Your task to perform on an android device: add a contact Image 0: 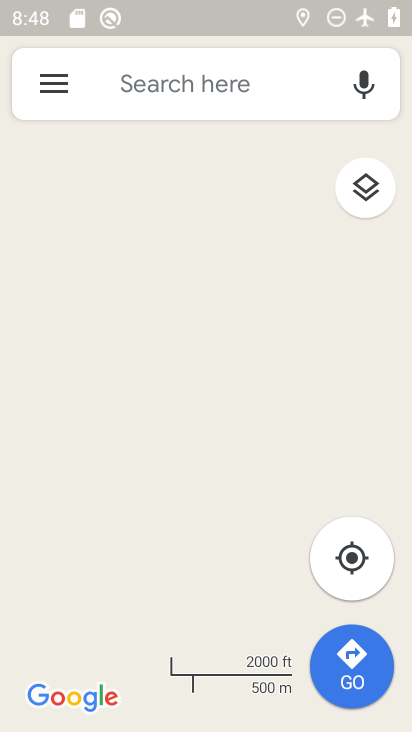
Step 0: press back button
Your task to perform on an android device: add a contact Image 1: 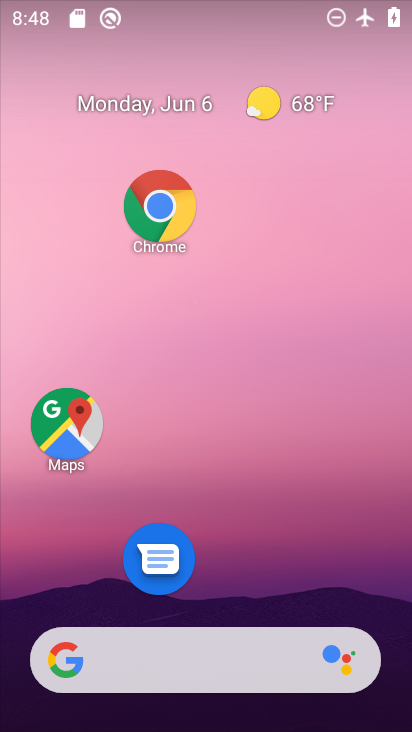
Step 1: drag from (230, 702) to (190, 192)
Your task to perform on an android device: add a contact Image 2: 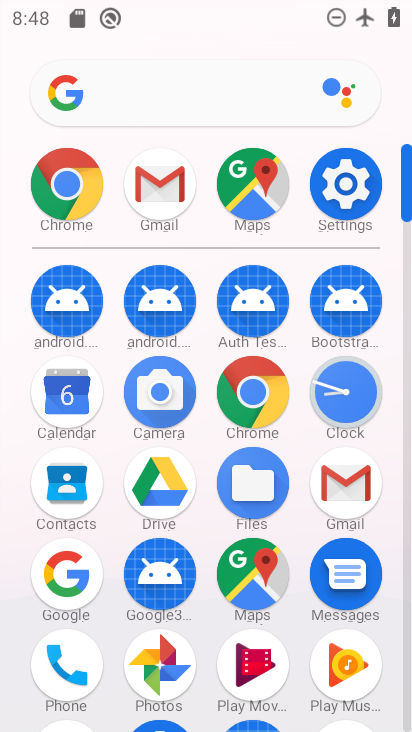
Step 2: click (59, 510)
Your task to perform on an android device: add a contact Image 3: 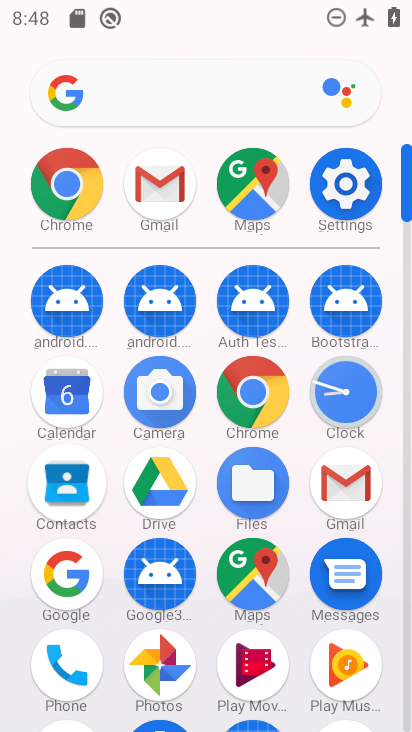
Step 3: click (63, 490)
Your task to perform on an android device: add a contact Image 4: 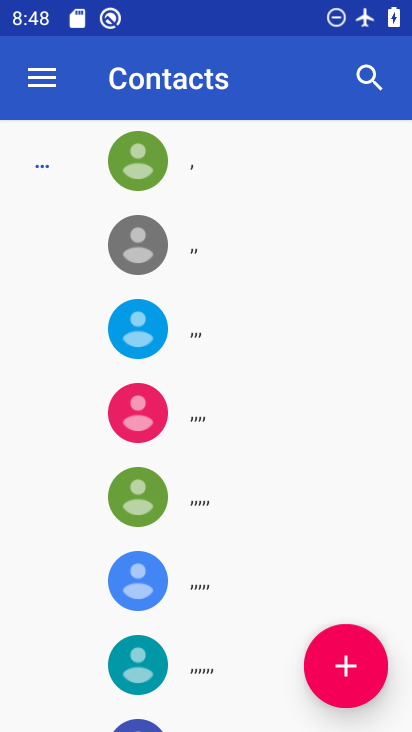
Step 4: click (340, 660)
Your task to perform on an android device: add a contact Image 5: 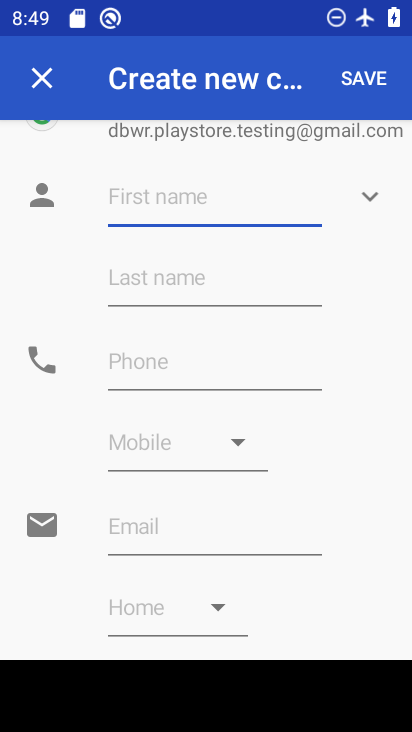
Step 5: type ""
Your task to perform on an android device: add a contact Image 6: 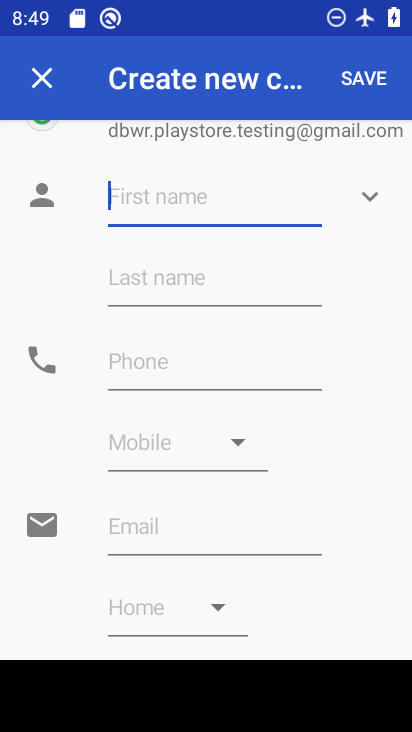
Step 6: type "be cjbfecj"
Your task to perform on an android device: add a contact Image 7: 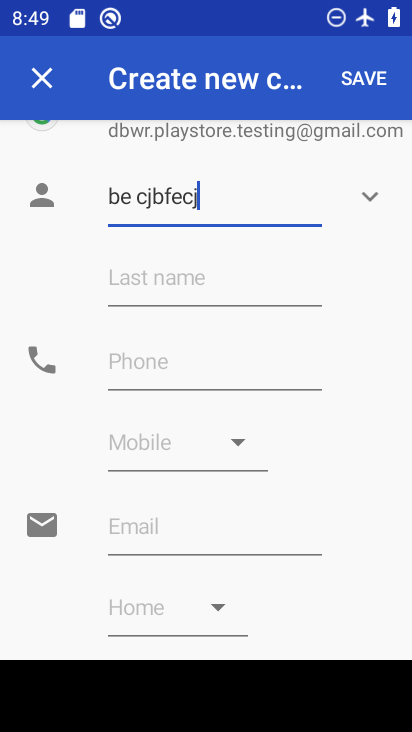
Step 7: click (137, 360)
Your task to perform on an android device: add a contact Image 8: 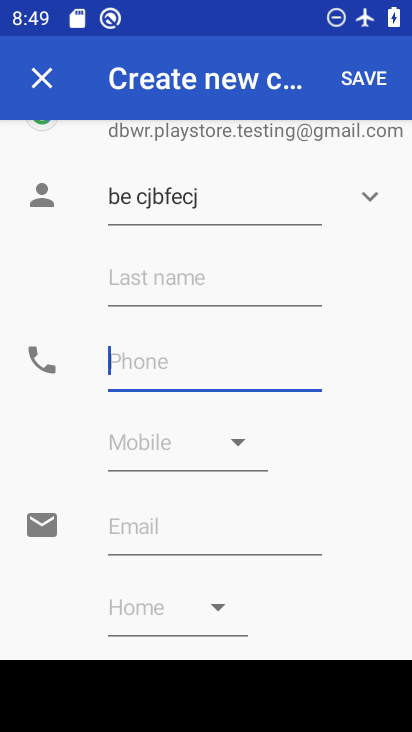
Step 8: click (137, 360)
Your task to perform on an android device: add a contact Image 9: 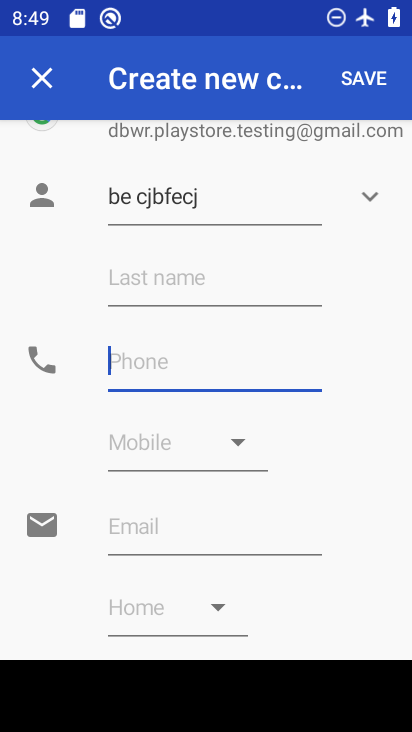
Step 9: click (137, 360)
Your task to perform on an android device: add a contact Image 10: 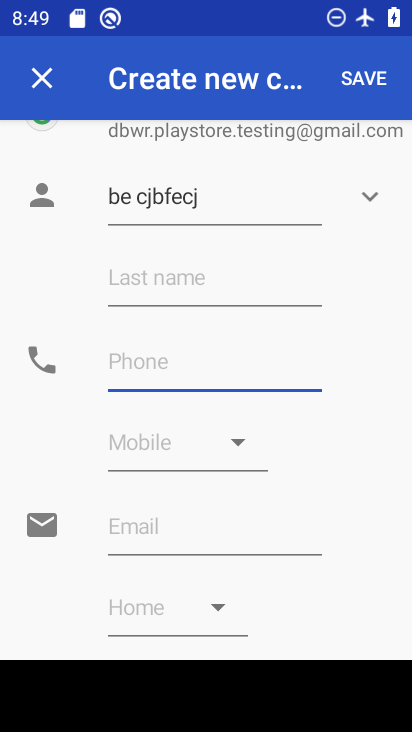
Step 10: click (137, 360)
Your task to perform on an android device: add a contact Image 11: 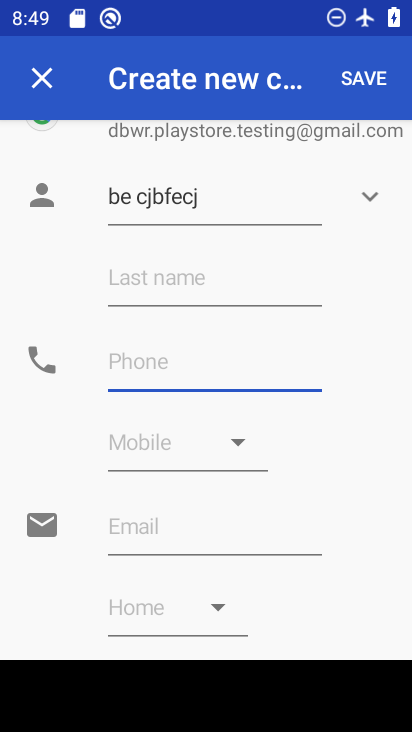
Step 11: type "4y893889333443"
Your task to perform on an android device: add a contact Image 12: 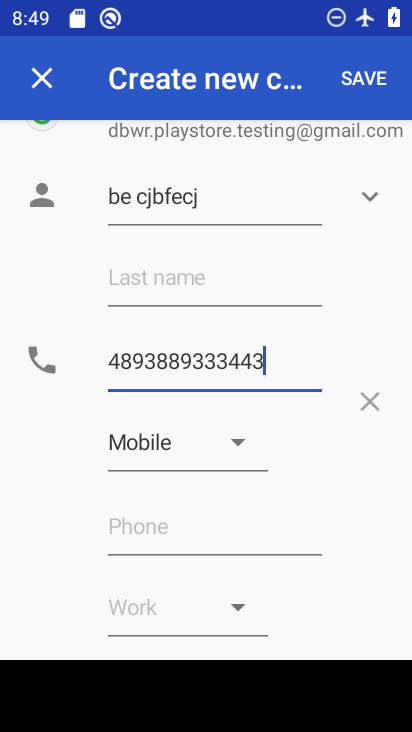
Step 12: click (361, 73)
Your task to perform on an android device: add a contact Image 13: 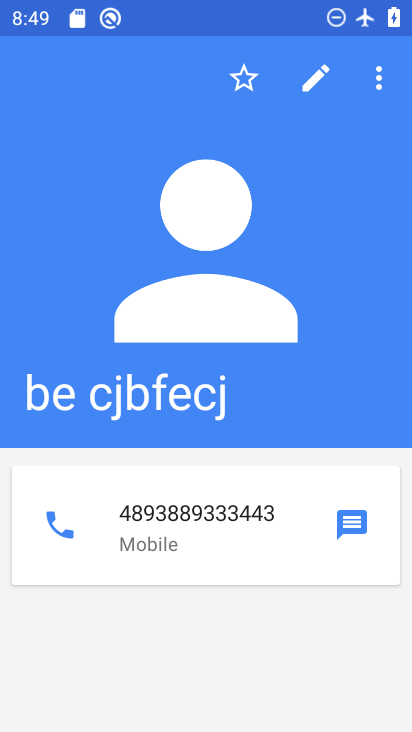
Step 13: task complete